Your task to perform on an android device: turn pop-ups on in chrome Image 0: 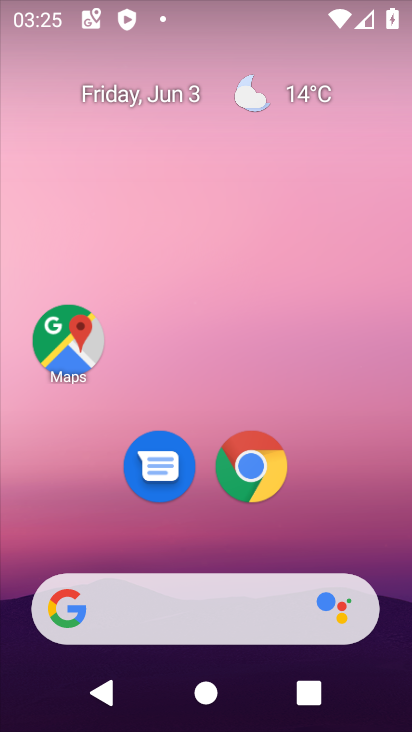
Step 0: click (249, 453)
Your task to perform on an android device: turn pop-ups on in chrome Image 1: 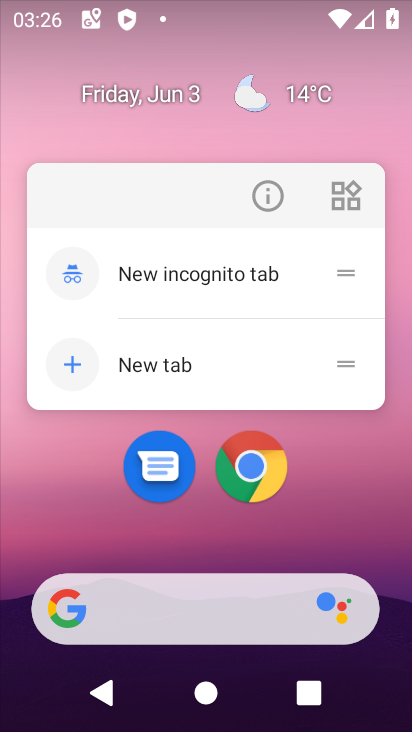
Step 1: click (253, 455)
Your task to perform on an android device: turn pop-ups on in chrome Image 2: 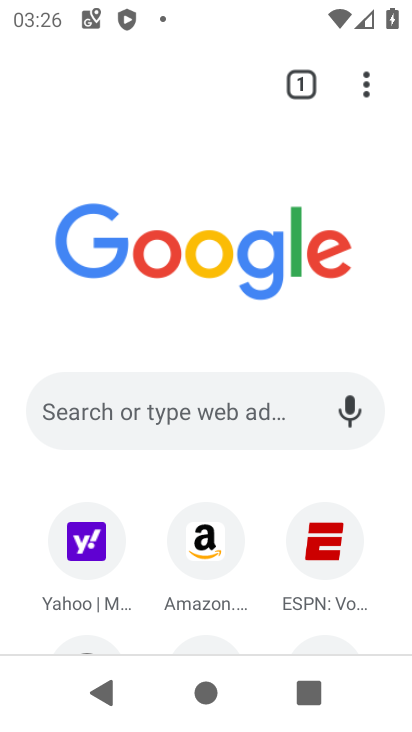
Step 2: click (367, 86)
Your task to perform on an android device: turn pop-ups on in chrome Image 3: 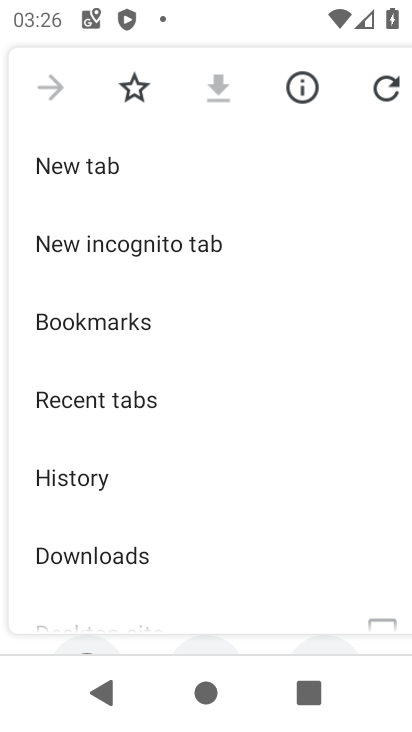
Step 3: drag from (203, 575) to (221, 173)
Your task to perform on an android device: turn pop-ups on in chrome Image 4: 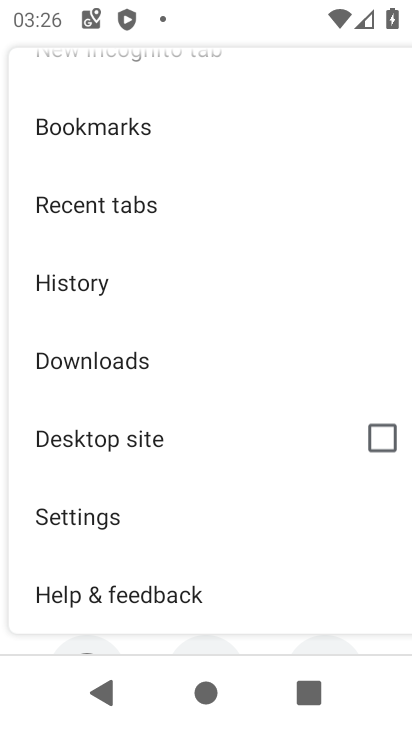
Step 4: click (138, 519)
Your task to perform on an android device: turn pop-ups on in chrome Image 5: 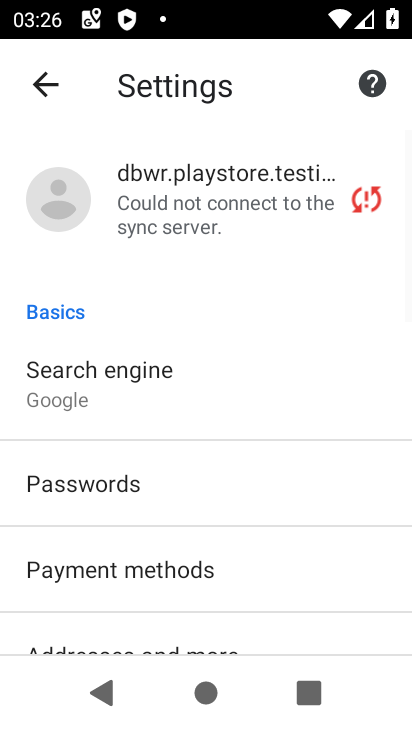
Step 5: drag from (222, 613) to (273, 158)
Your task to perform on an android device: turn pop-ups on in chrome Image 6: 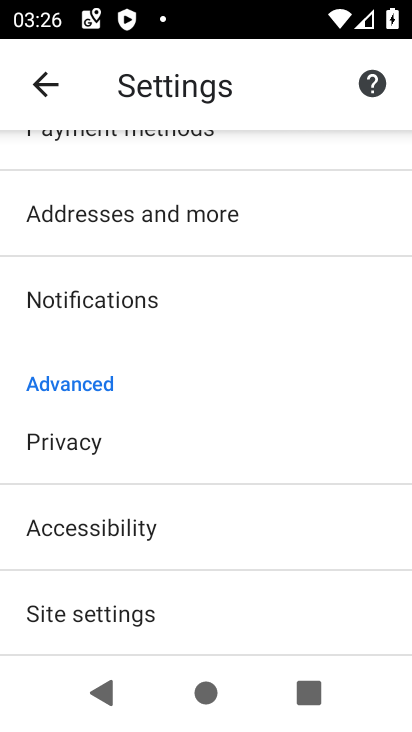
Step 6: click (186, 610)
Your task to perform on an android device: turn pop-ups on in chrome Image 7: 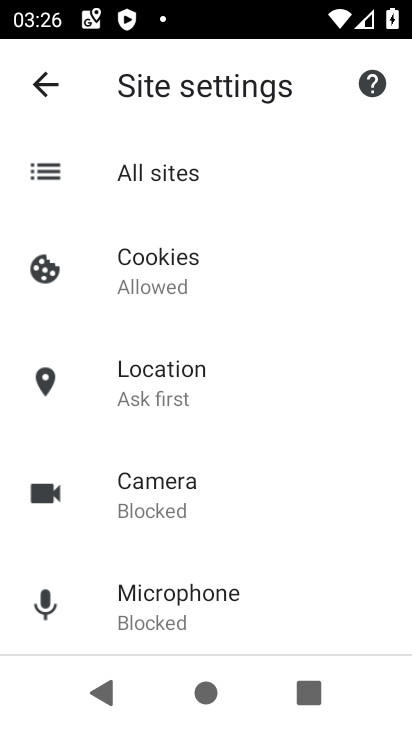
Step 7: click (251, 610)
Your task to perform on an android device: turn pop-ups on in chrome Image 8: 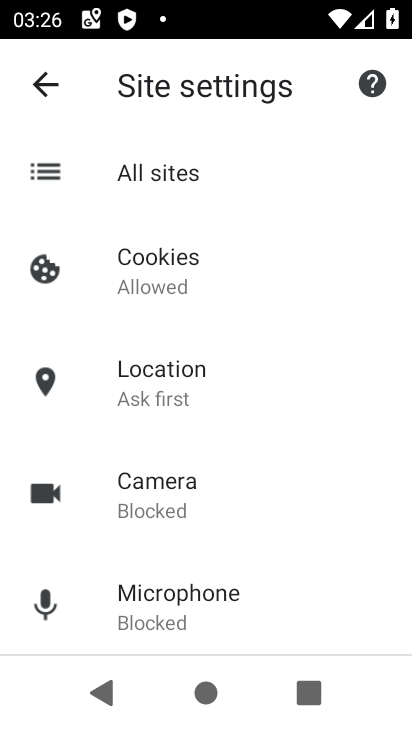
Step 8: drag from (255, 411) to (274, 182)
Your task to perform on an android device: turn pop-ups on in chrome Image 9: 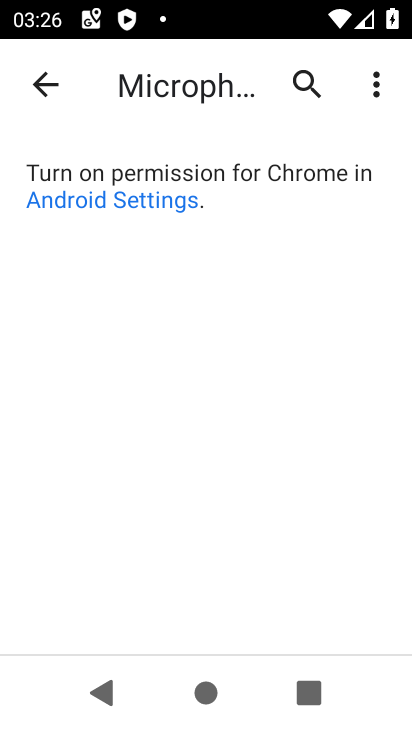
Step 9: click (52, 75)
Your task to perform on an android device: turn pop-ups on in chrome Image 10: 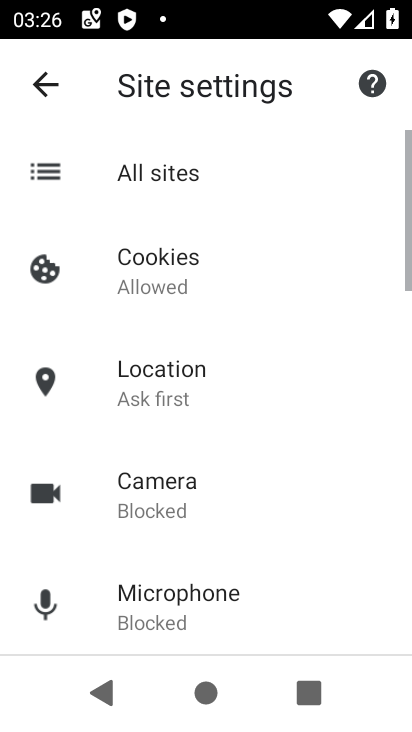
Step 10: drag from (219, 535) to (216, 121)
Your task to perform on an android device: turn pop-ups on in chrome Image 11: 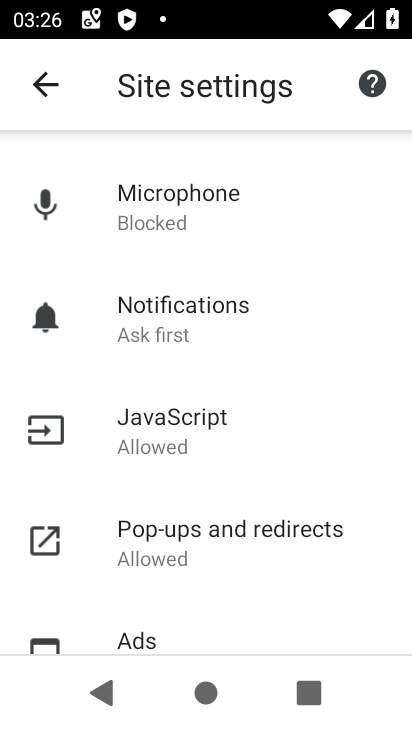
Step 11: click (209, 547)
Your task to perform on an android device: turn pop-ups on in chrome Image 12: 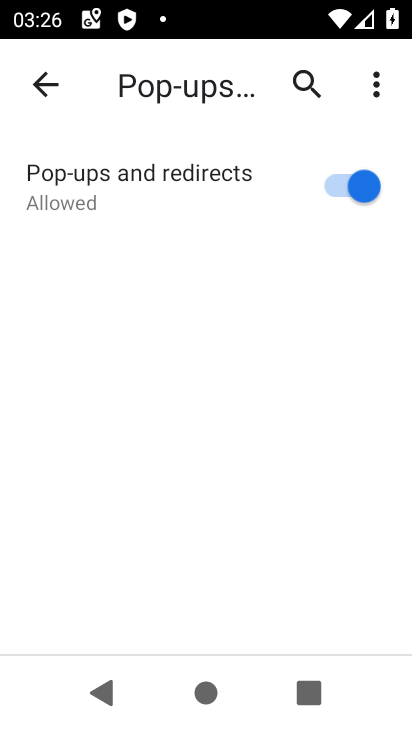
Step 12: task complete